Your task to perform on an android device: Do I have any events this weekend? Image 0: 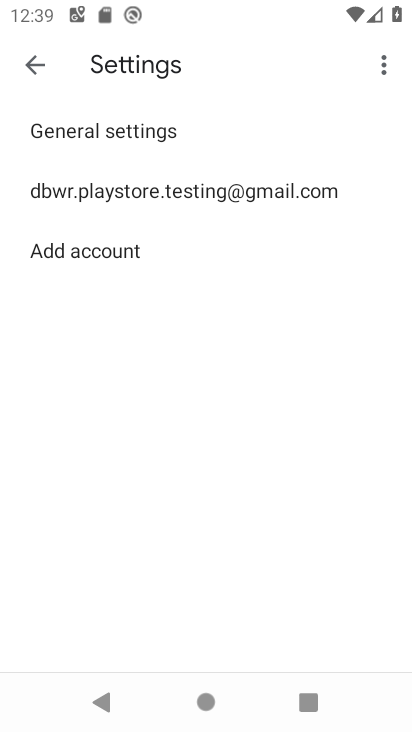
Step 0: press home button
Your task to perform on an android device: Do I have any events this weekend? Image 1: 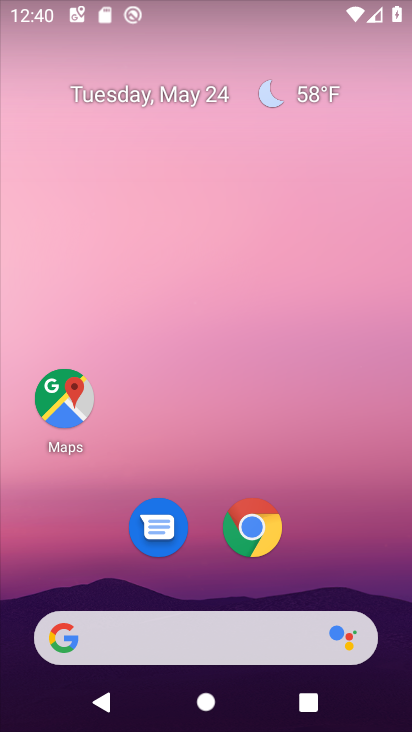
Step 1: drag from (393, 570) to (329, 56)
Your task to perform on an android device: Do I have any events this weekend? Image 2: 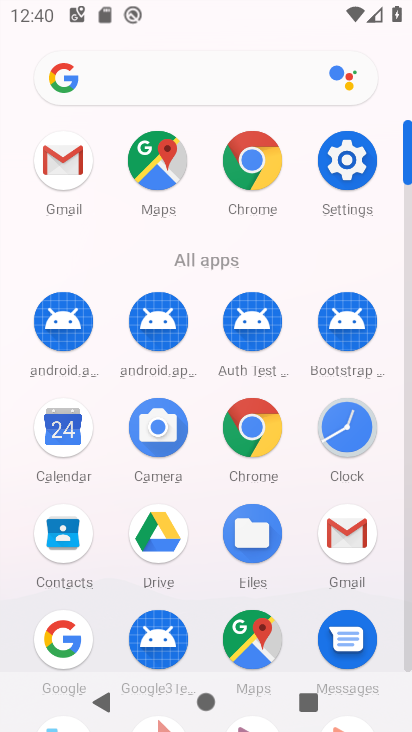
Step 2: click (74, 419)
Your task to perform on an android device: Do I have any events this weekend? Image 3: 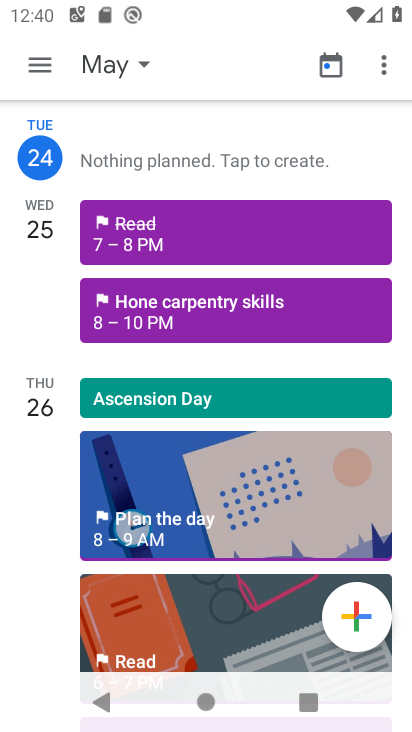
Step 3: click (38, 82)
Your task to perform on an android device: Do I have any events this weekend? Image 4: 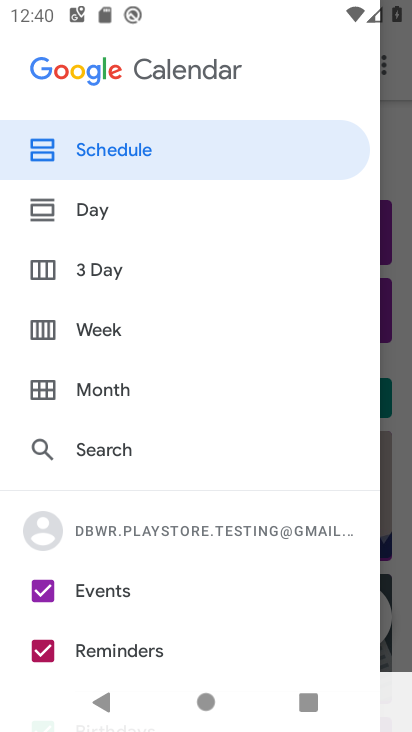
Step 4: click (117, 276)
Your task to perform on an android device: Do I have any events this weekend? Image 5: 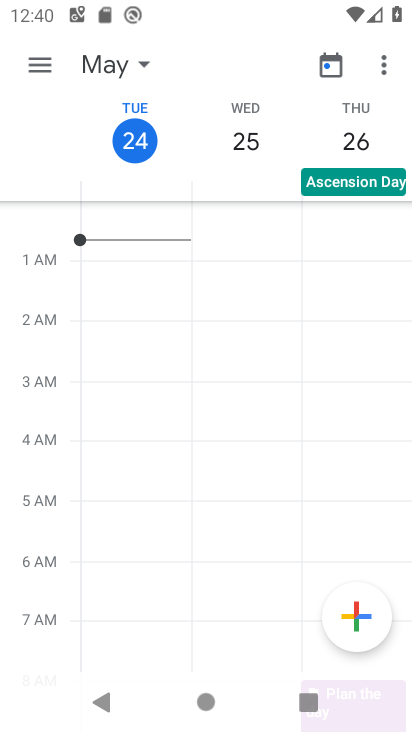
Step 5: click (37, 67)
Your task to perform on an android device: Do I have any events this weekend? Image 6: 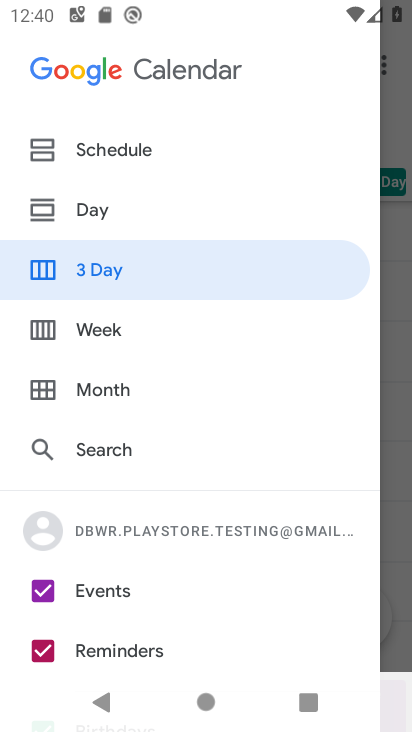
Step 6: drag from (180, 637) to (147, 175)
Your task to perform on an android device: Do I have any events this weekend? Image 7: 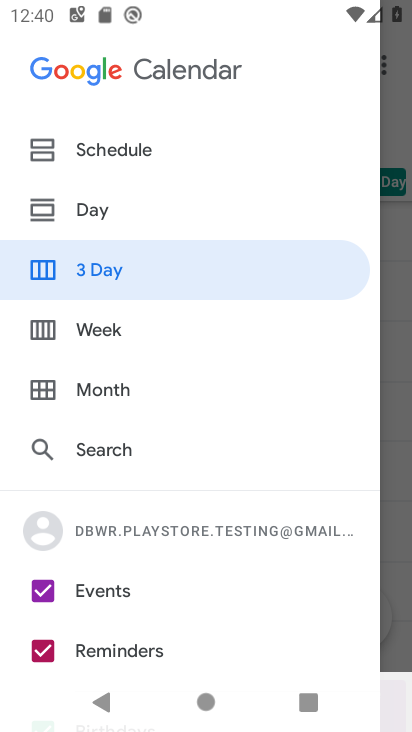
Step 7: drag from (98, 623) to (90, 244)
Your task to perform on an android device: Do I have any events this weekend? Image 8: 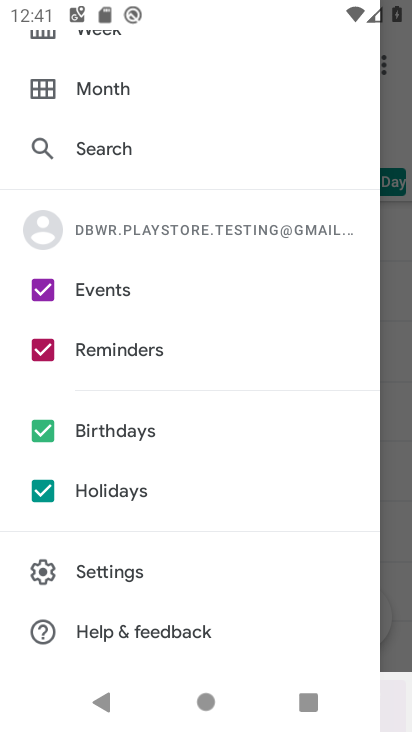
Step 8: click (45, 487)
Your task to perform on an android device: Do I have any events this weekend? Image 9: 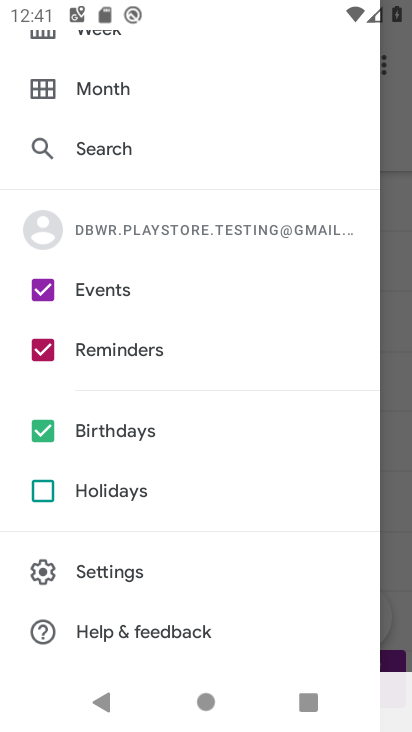
Step 9: click (43, 435)
Your task to perform on an android device: Do I have any events this weekend? Image 10: 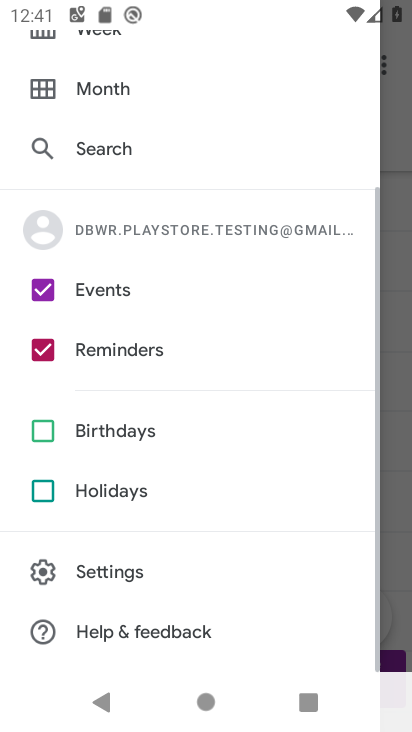
Step 10: click (41, 355)
Your task to perform on an android device: Do I have any events this weekend? Image 11: 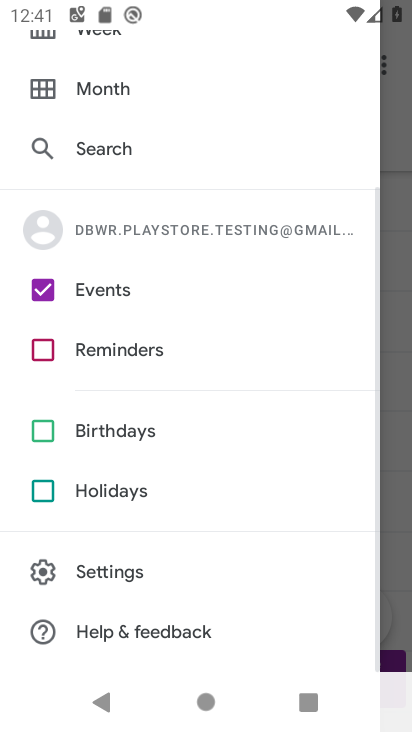
Step 11: drag from (106, 108) to (157, 398)
Your task to perform on an android device: Do I have any events this weekend? Image 12: 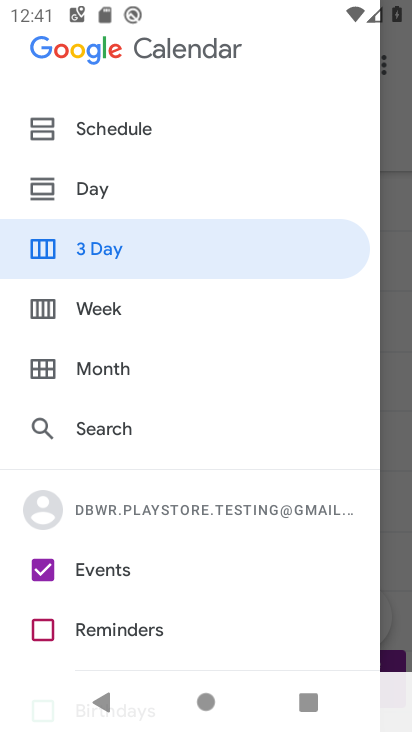
Step 12: click (87, 244)
Your task to perform on an android device: Do I have any events this weekend? Image 13: 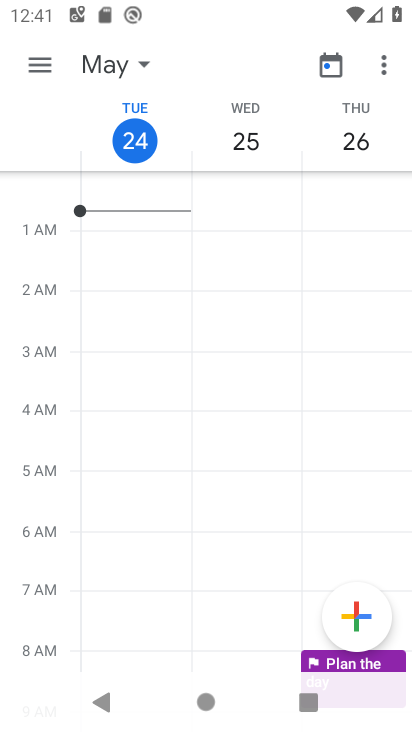
Step 13: drag from (371, 143) to (98, 110)
Your task to perform on an android device: Do I have any events this weekend? Image 14: 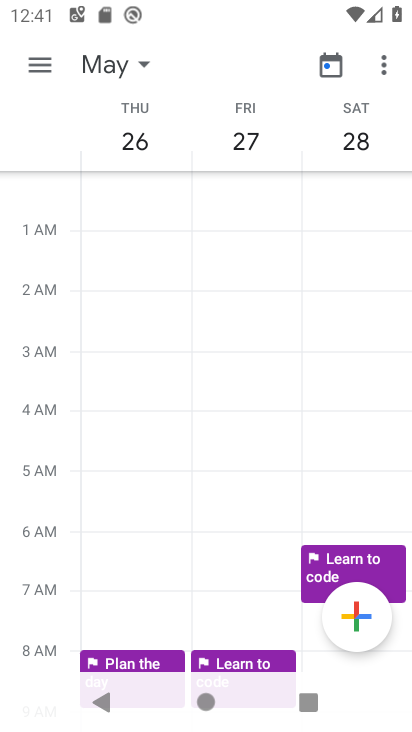
Step 14: click (353, 143)
Your task to perform on an android device: Do I have any events this weekend? Image 15: 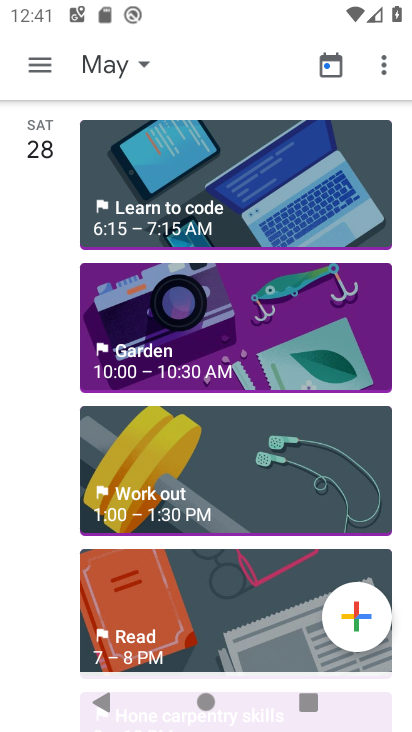
Step 15: task complete